Your task to perform on an android device: What's the latest news in space science? Image 0: 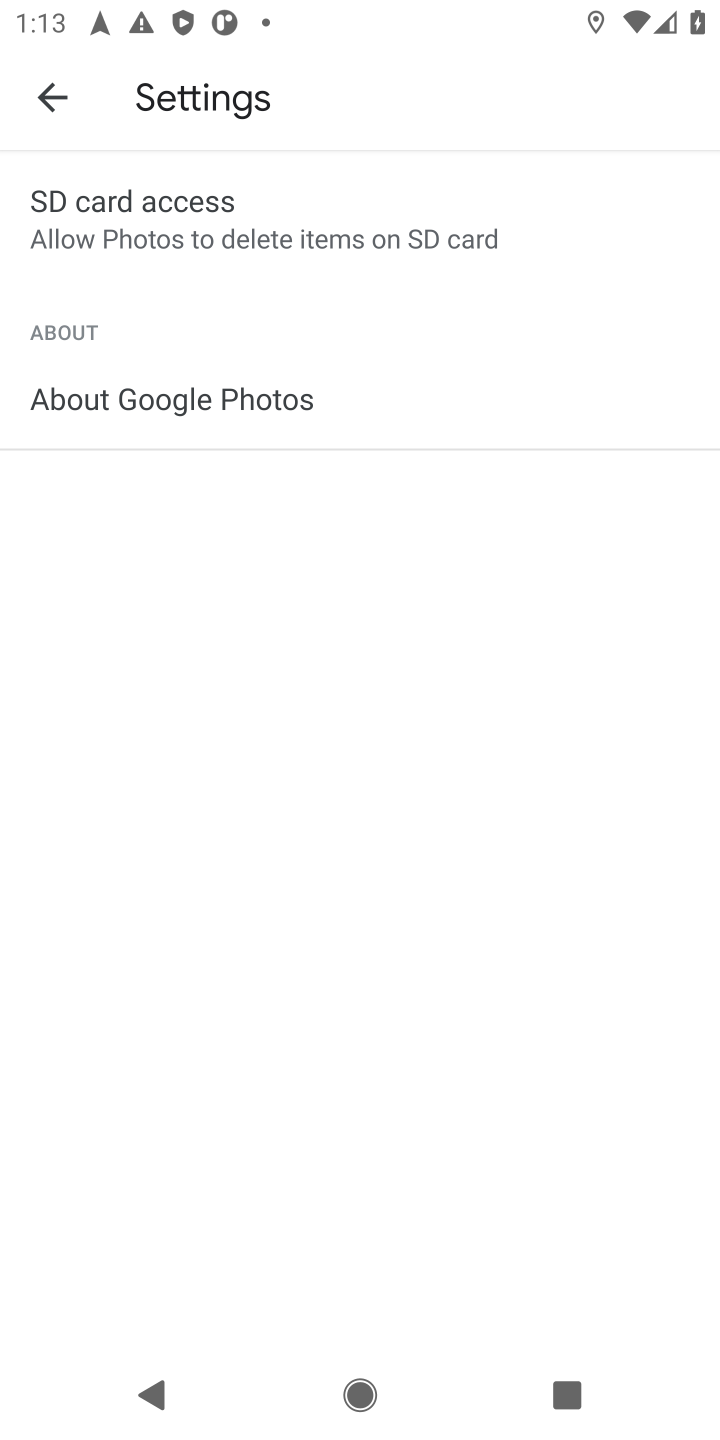
Step 0: press home button
Your task to perform on an android device: What's the latest news in space science? Image 1: 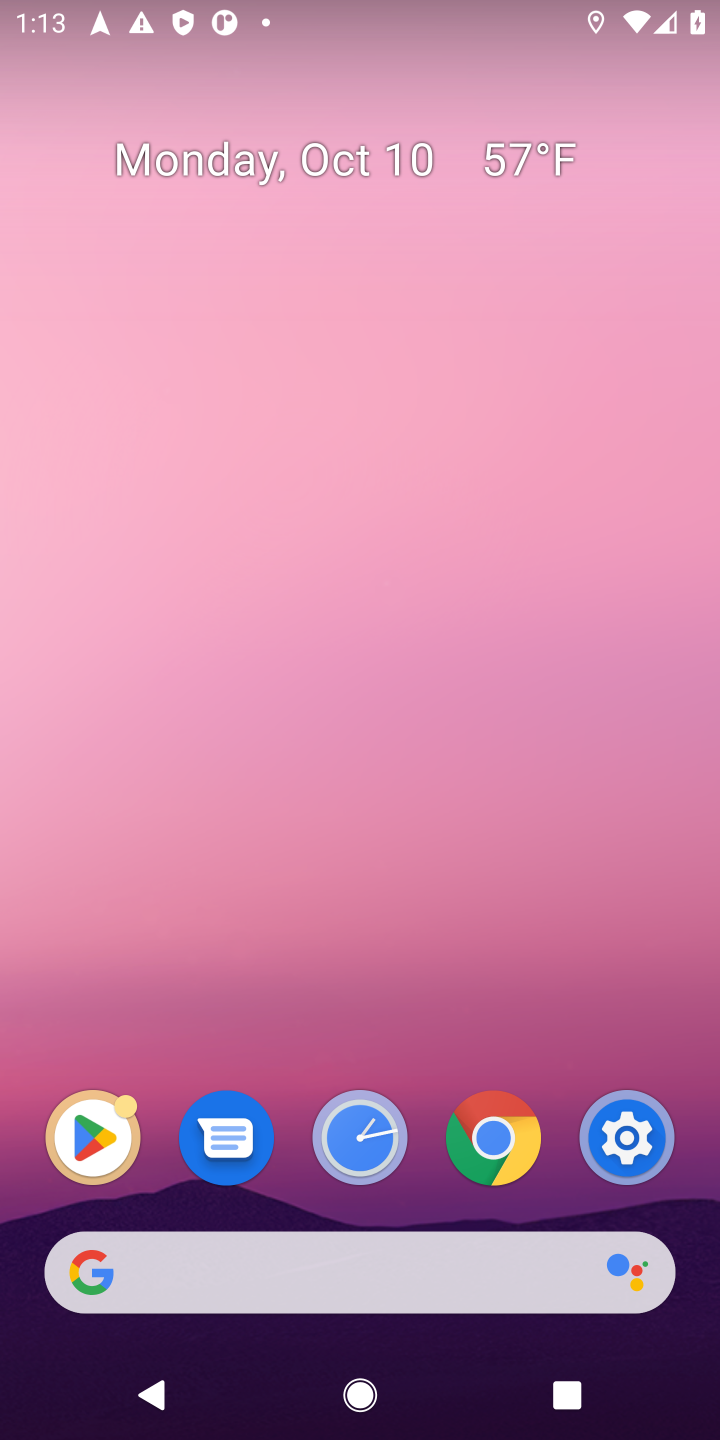
Step 1: click (309, 1285)
Your task to perform on an android device: What's the latest news in space science? Image 2: 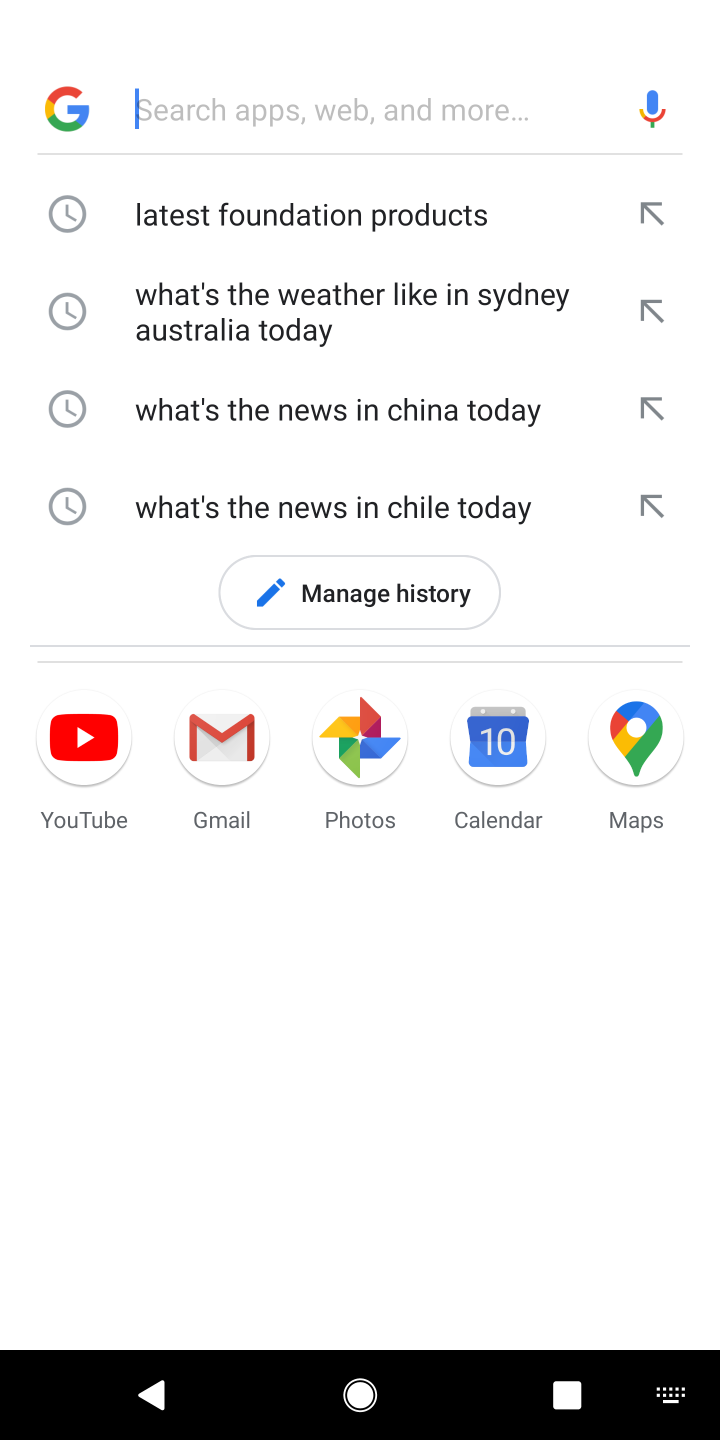
Step 2: type "latest news in space science?"
Your task to perform on an android device: What's the latest news in space science? Image 3: 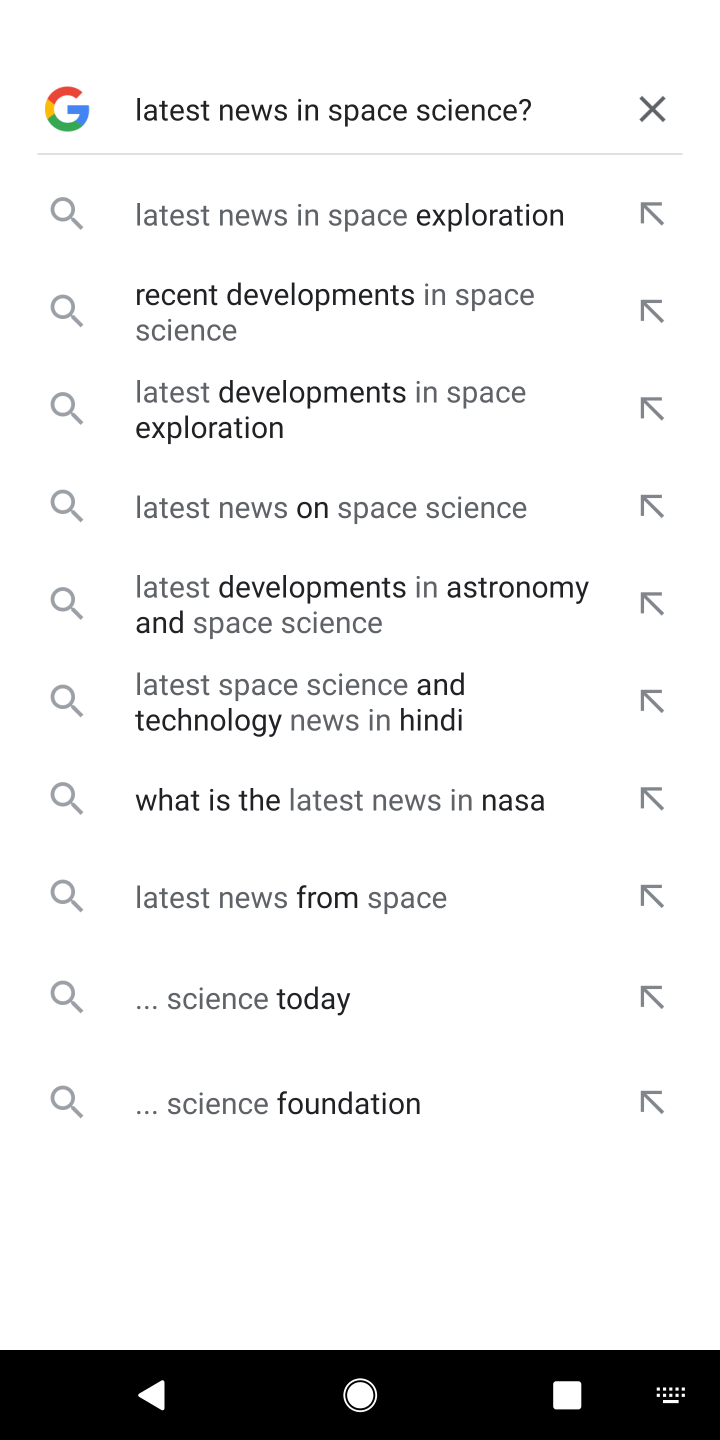
Step 3: click (317, 501)
Your task to perform on an android device: What's the latest news in space science? Image 4: 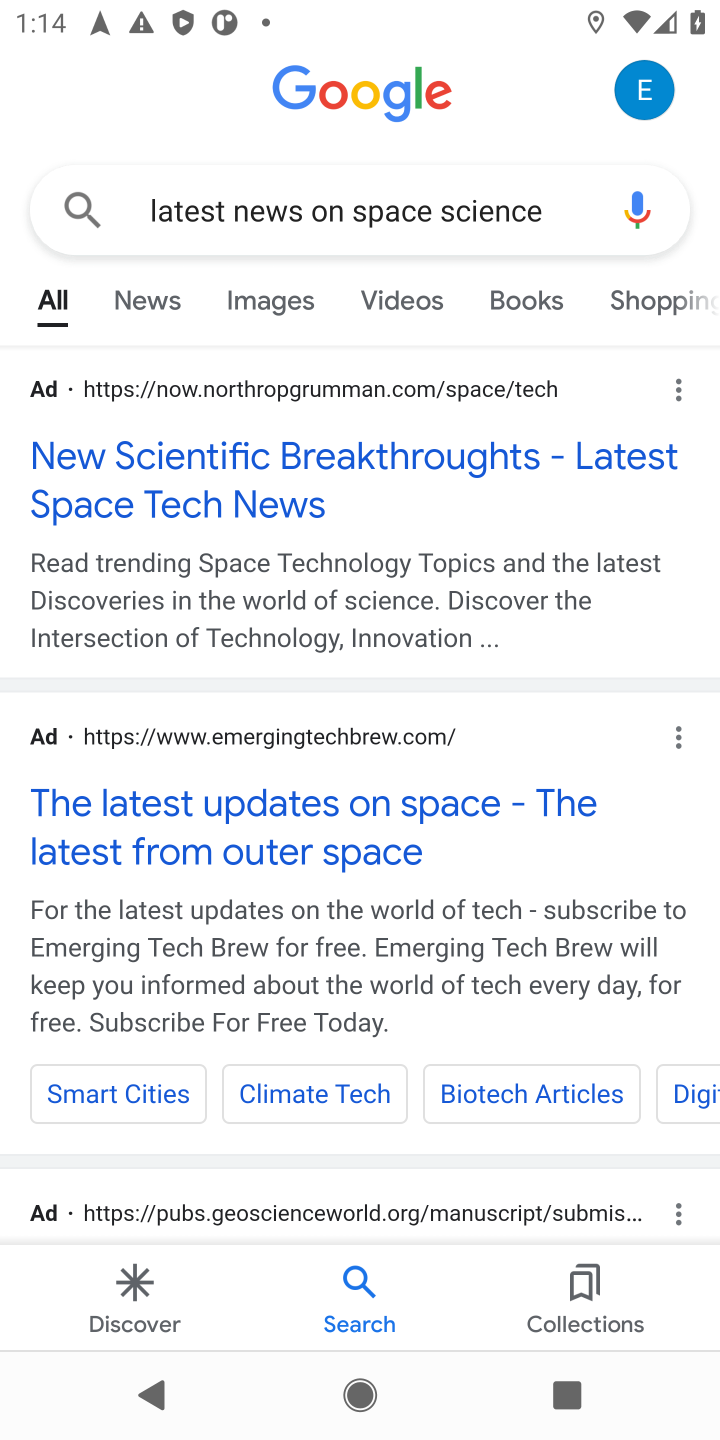
Step 4: click (268, 478)
Your task to perform on an android device: What's the latest news in space science? Image 5: 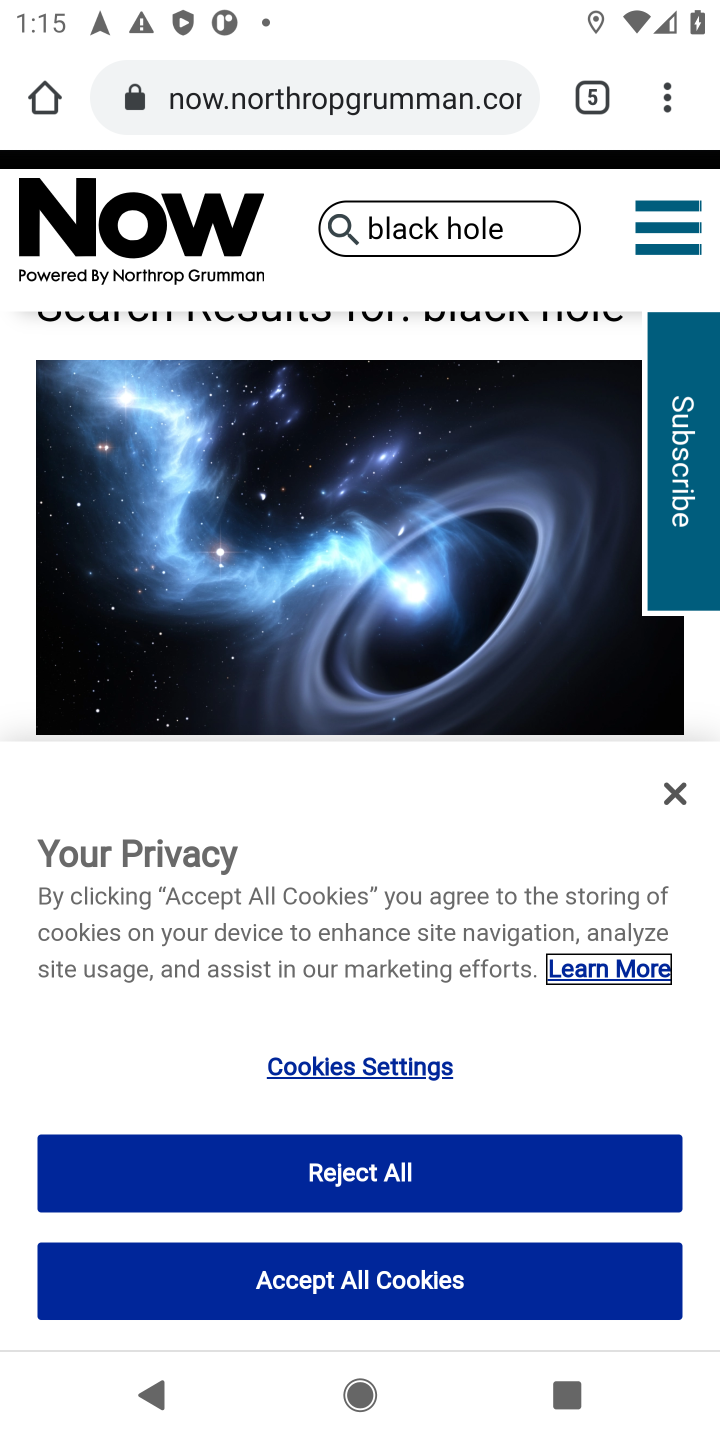
Step 5: click (357, 1167)
Your task to perform on an android device: What's the latest news in space science? Image 6: 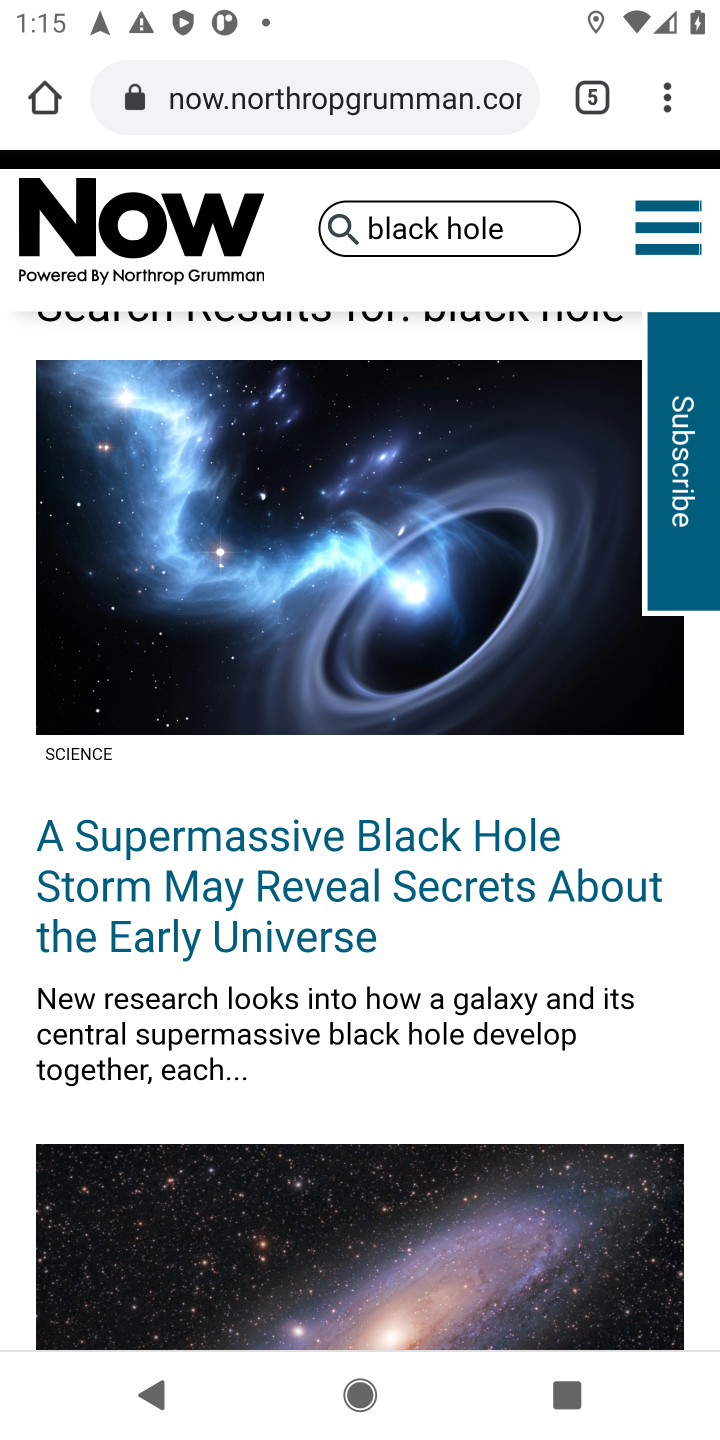
Step 6: task complete